Your task to perform on an android device: toggle pop-ups in chrome Image 0: 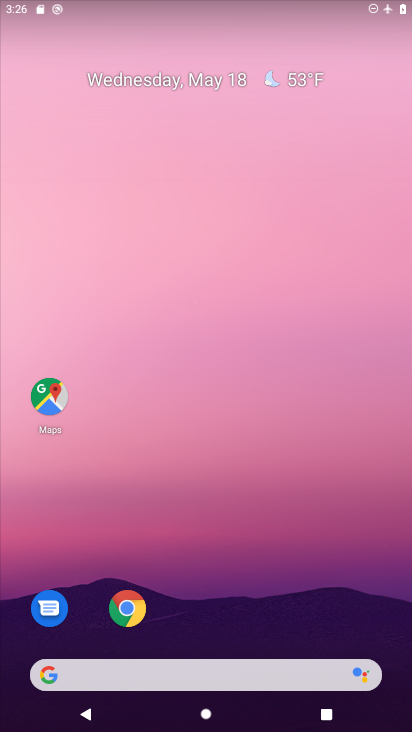
Step 0: click (117, 609)
Your task to perform on an android device: toggle pop-ups in chrome Image 1: 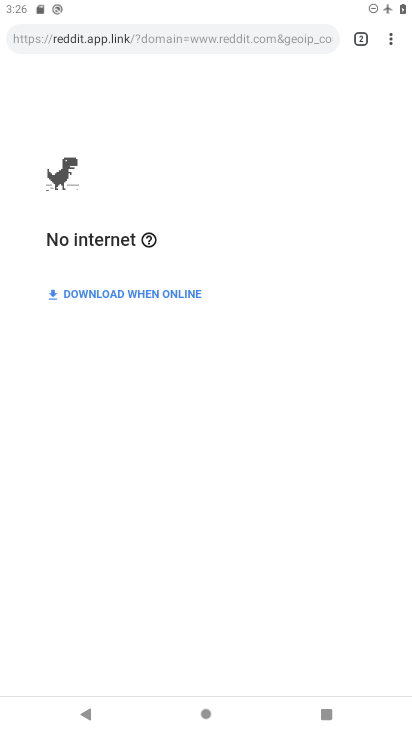
Step 1: click (392, 37)
Your task to perform on an android device: toggle pop-ups in chrome Image 2: 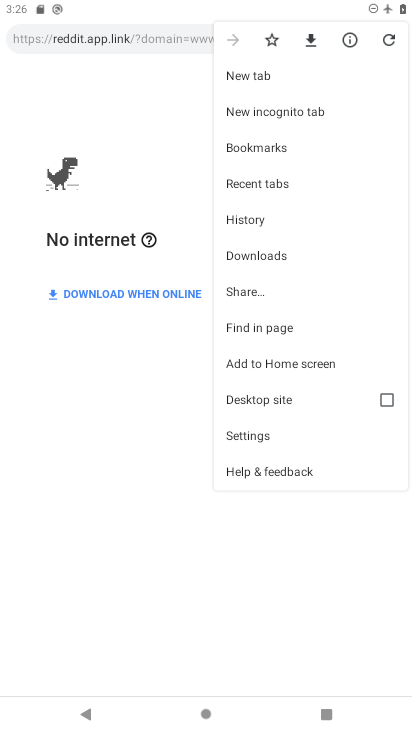
Step 2: click (257, 435)
Your task to perform on an android device: toggle pop-ups in chrome Image 3: 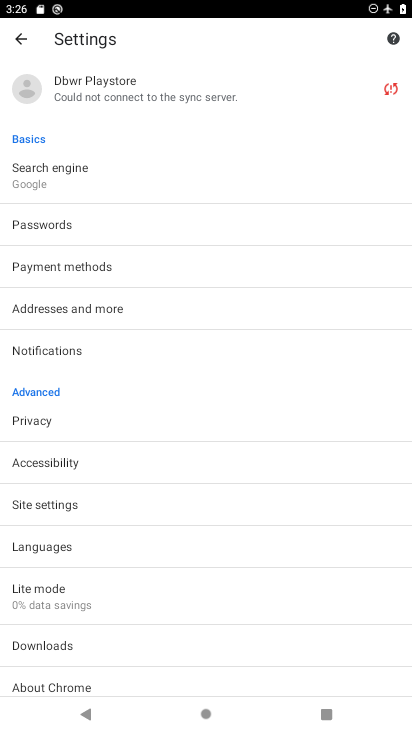
Step 3: click (23, 503)
Your task to perform on an android device: toggle pop-ups in chrome Image 4: 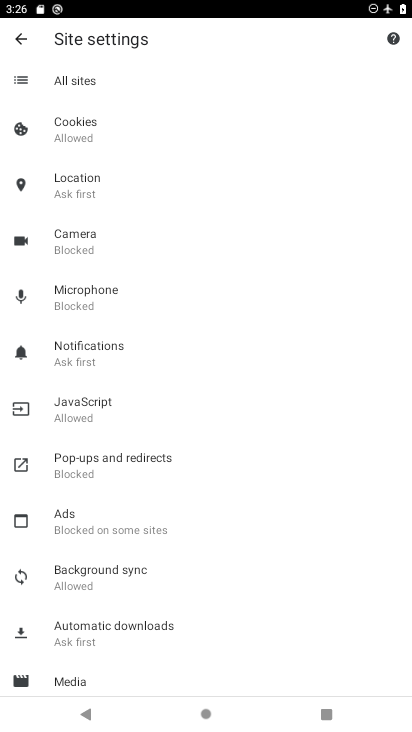
Step 4: click (105, 467)
Your task to perform on an android device: toggle pop-ups in chrome Image 5: 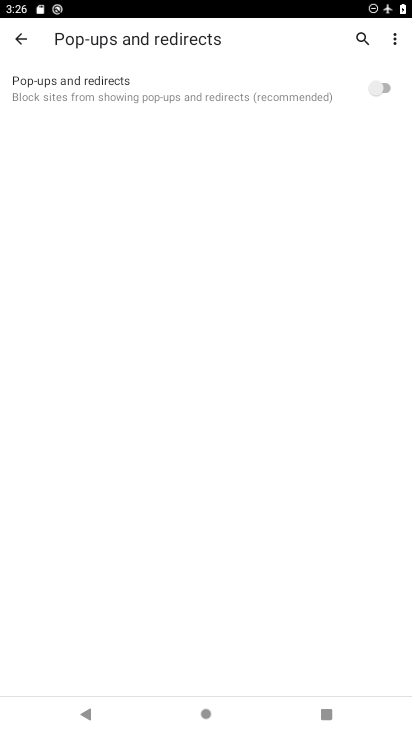
Step 5: click (385, 83)
Your task to perform on an android device: toggle pop-ups in chrome Image 6: 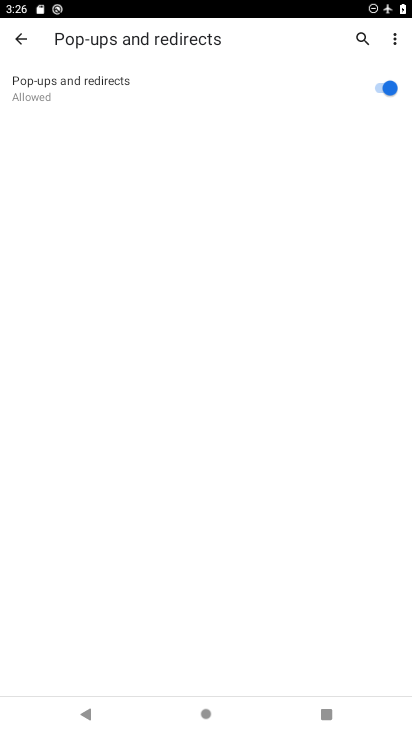
Step 6: task complete